Your task to perform on an android device: Go to internet settings Image 0: 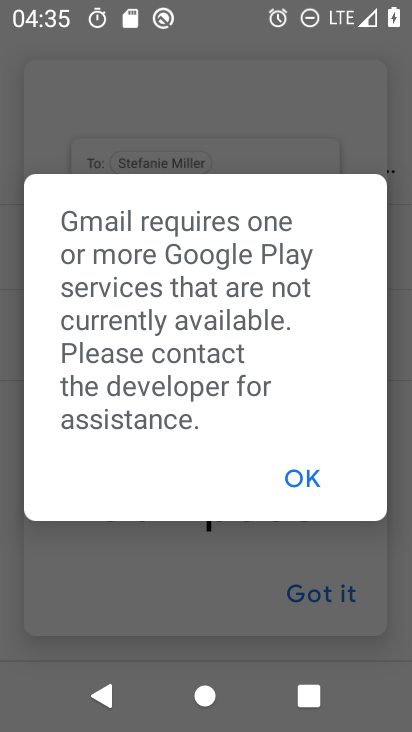
Step 0: click (313, 494)
Your task to perform on an android device: Go to internet settings Image 1: 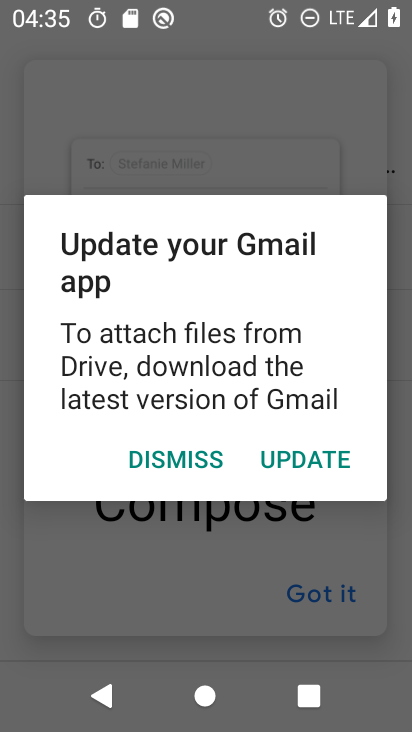
Step 1: click (186, 451)
Your task to perform on an android device: Go to internet settings Image 2: 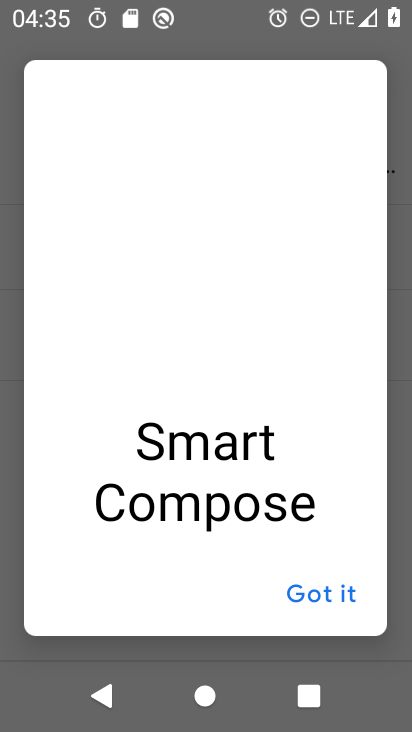
Step 2: press back button
Your task to perform on an android device: Go to internet settings Image 3: 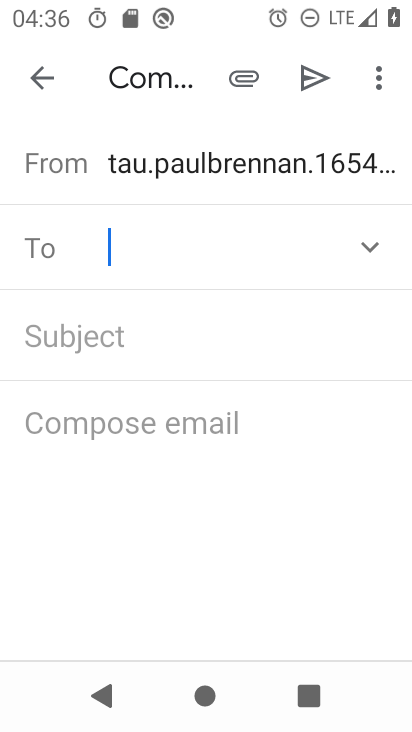
Step 3: press home button
Your task to perform on an android device: Go to internet settings Image 4: 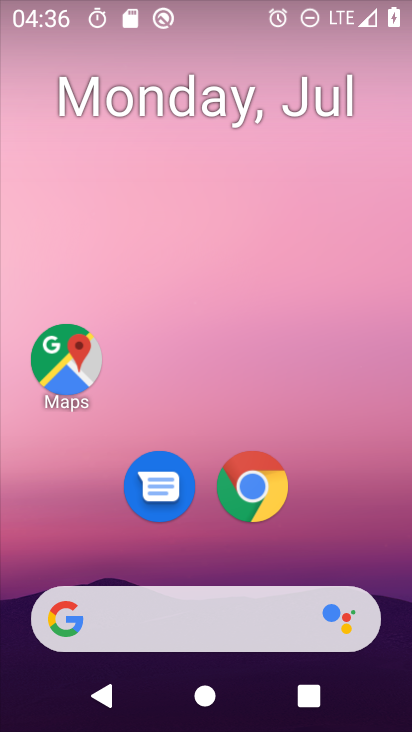
Step 4: drag from (190, 506) to (277, 2)
Your task to perform on an android device: Go to internet settings Image 5: 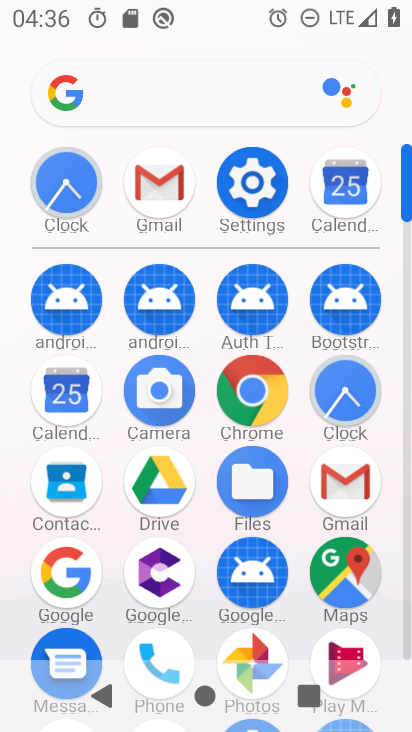
Step 5: click (233, 204)
Your task to perform on an android device: Go to internet settings Image 6: 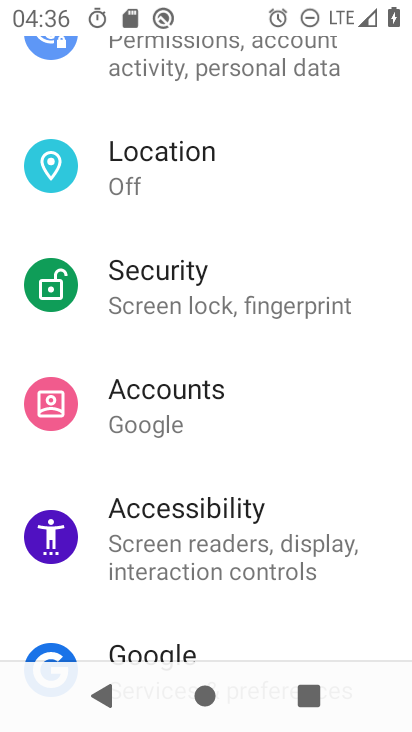
Step 6: drag from (208, 104) to (187, 596)
Your task to perform on an android device: Go to internet settings Image 7: 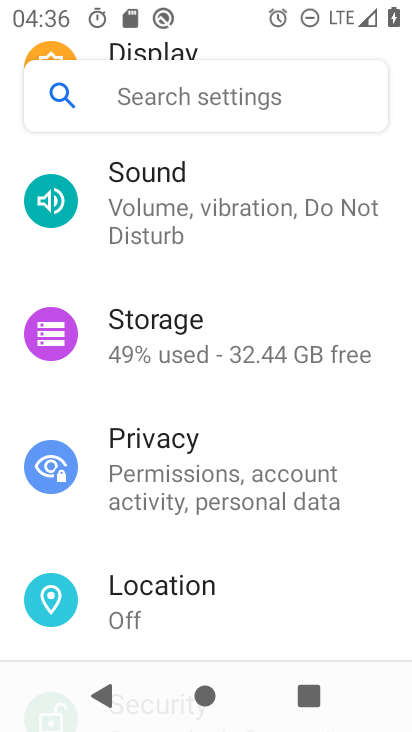
Step 7: drag from (248, 244) to (208, 559)
Your task to perform on an android device: Go to internet settings Image 8: 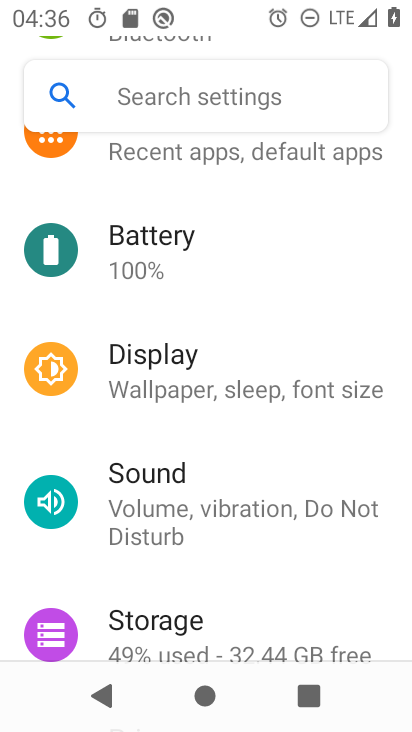
Step 8: drag from (219, 250) to (127, 615)
Your task to perform on an android device: Go to internet settings Image 9: 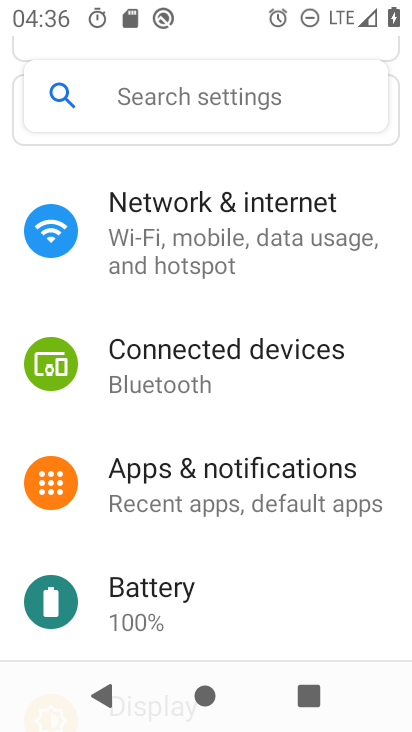
Step 9: click (216, 239)
Your task to perform on an android device: Go to internet settings Image 10: 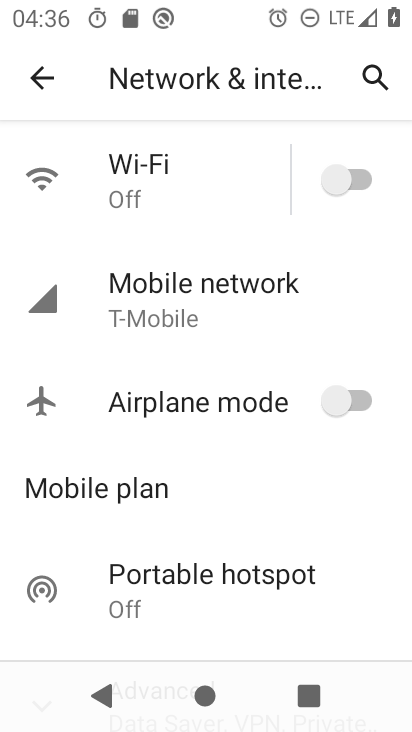
Step 10: task complete